Your task to perform on an android device: What's the weather going to be tomorrow? Image 0: 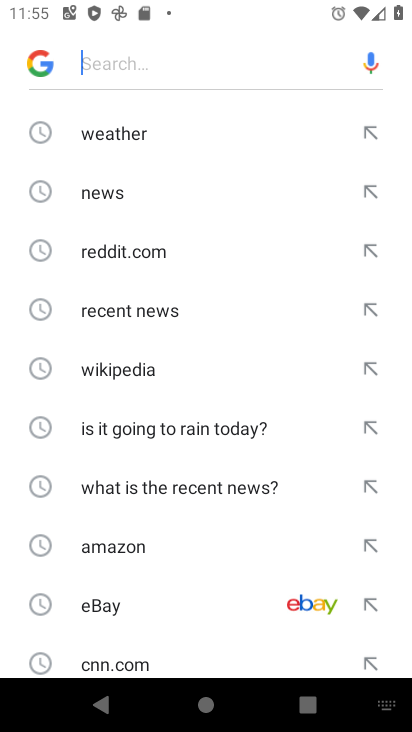
Step 0: drag from (217, 332) to (206, 203)
Your task to perform on an android device: What's the weather going to be tomorrow? Image 1: 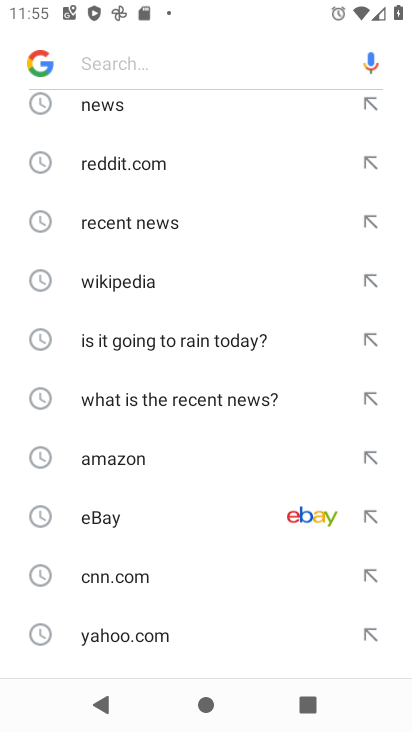
Step 1: drag from (191, 604) to (179, 245)
Your task to perform on an android device: What's the weather going to be tomorrow? Image 2: 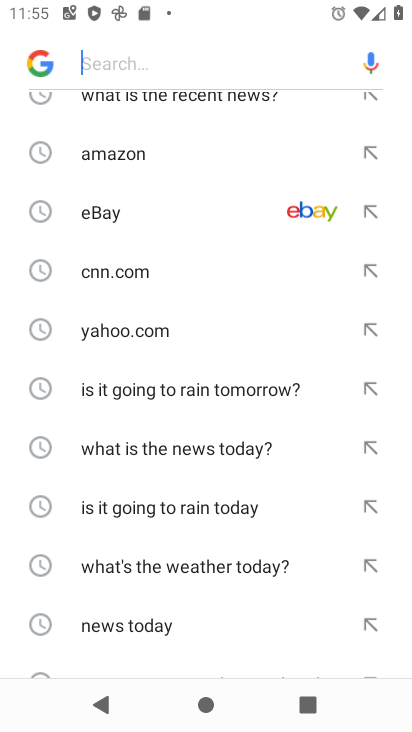
Step 2: type "whats the weather going to be tomorrow"
Your task to perform on an android device: What's the weather going to be tomorrow? Image 3: 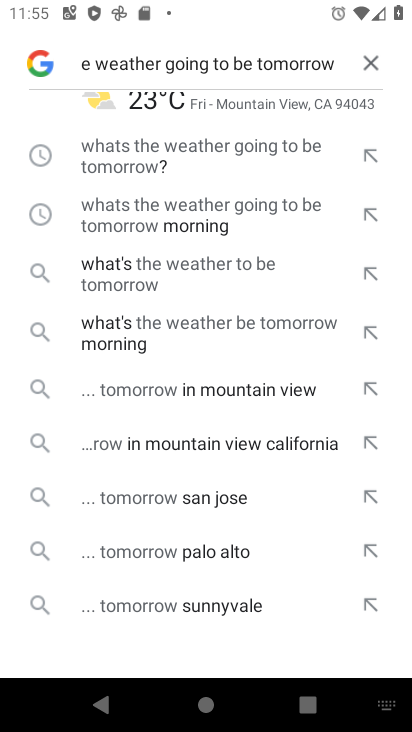
Step 3: drag from (166, 130) to (182, 292)
Your task to perform on an android device: What's the weather going to be tomorrow? Image 4: 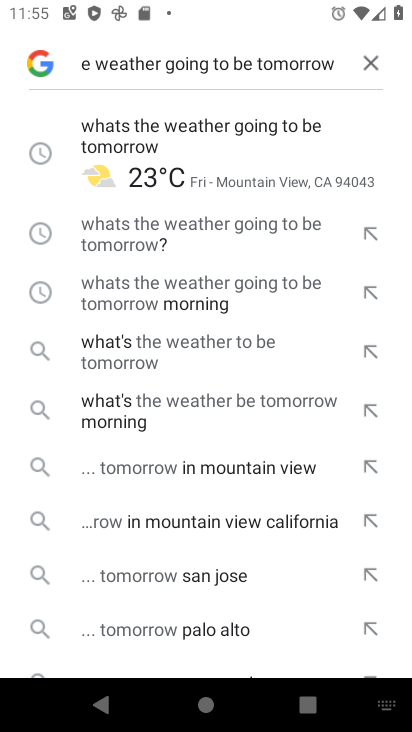
Step 4: click (126, 121)
Your task to perform on an android device: What's the weather going to be tomorrow? Image 5: 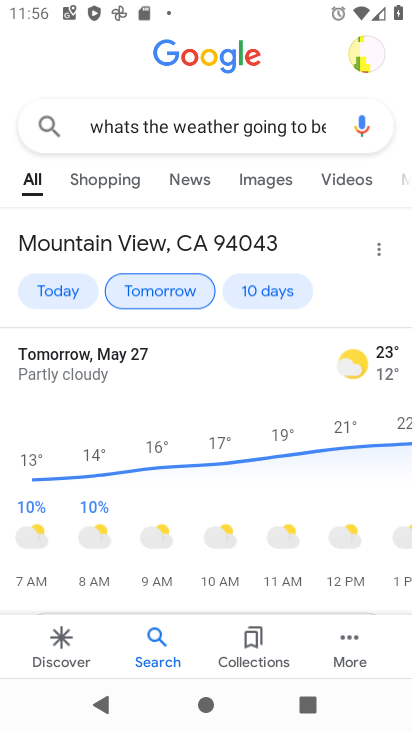
Step 5: task complete